Your task to perform on an android device: check google app version Image 0: 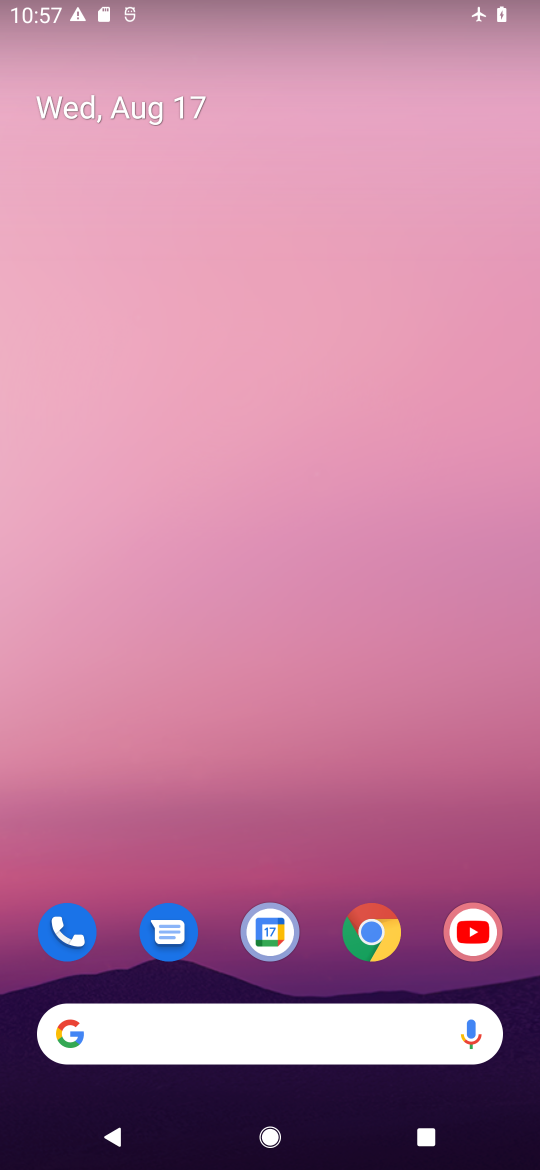
Step 0: drag from (308, 786) to (308, 221)
Your task to perform on an android device: check google app version Image 1: 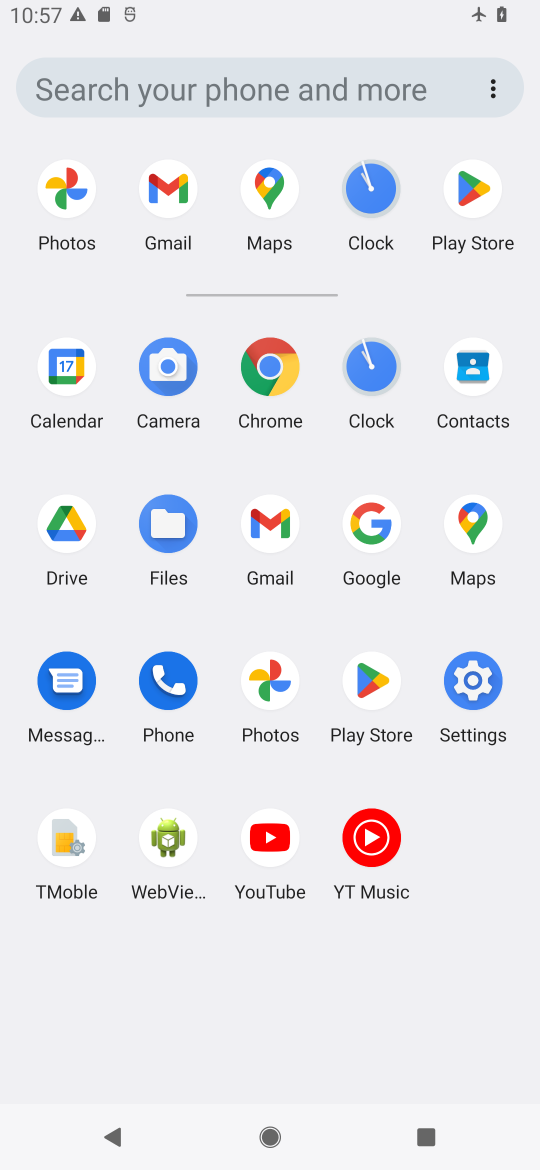
Step 1: click (358, 553)
Your task to perform on an android device: check google app version Image 2: 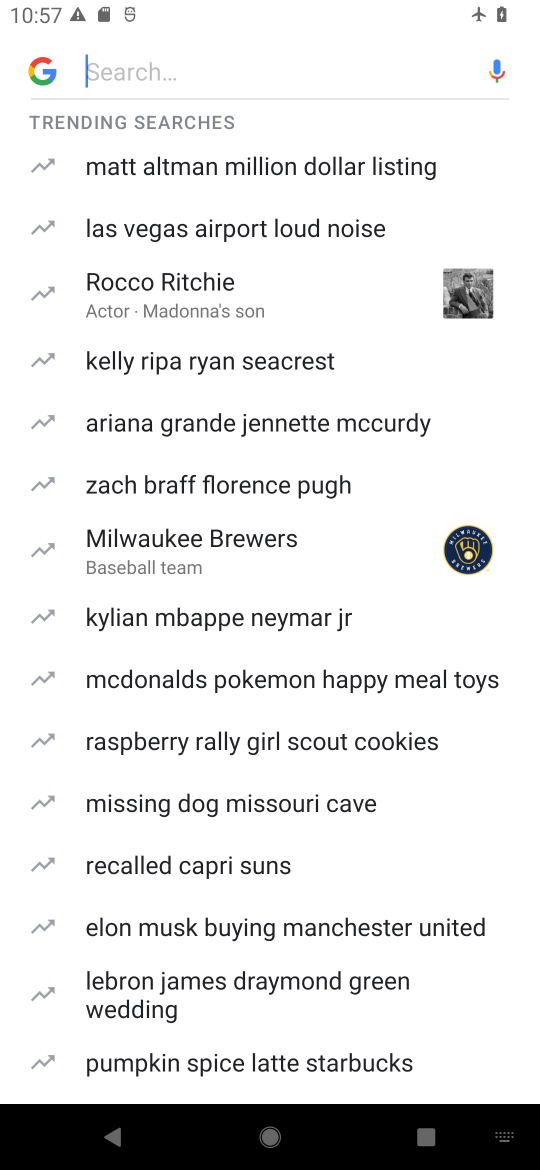
Step 2: click (28, 97)
Your task to perform on an android device: check google app version Image 3: 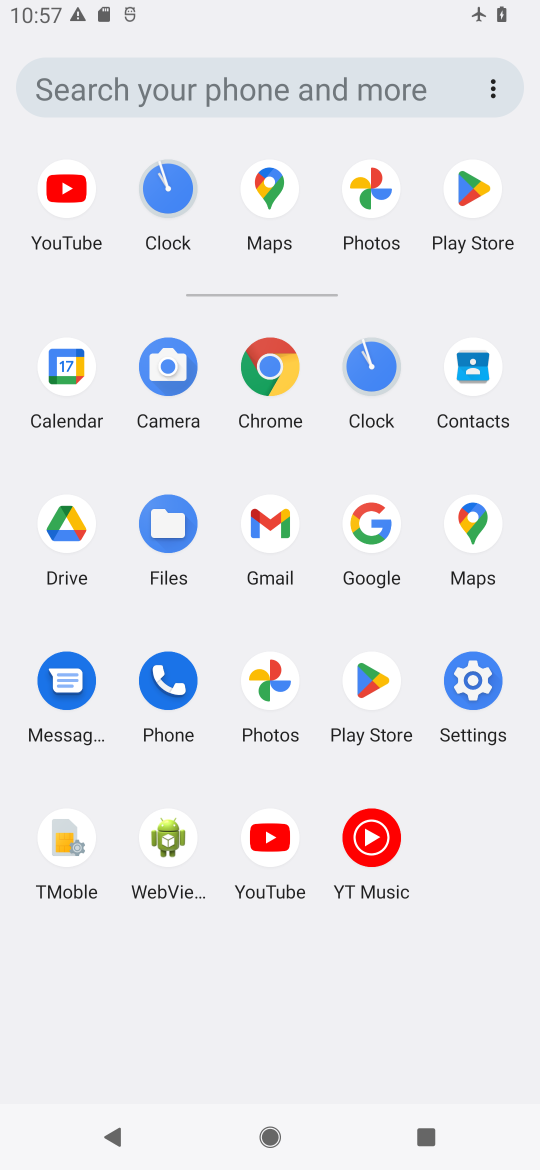
Step 3: click (385, 511)
Your task to perform on an android device: check google app version Image 4: 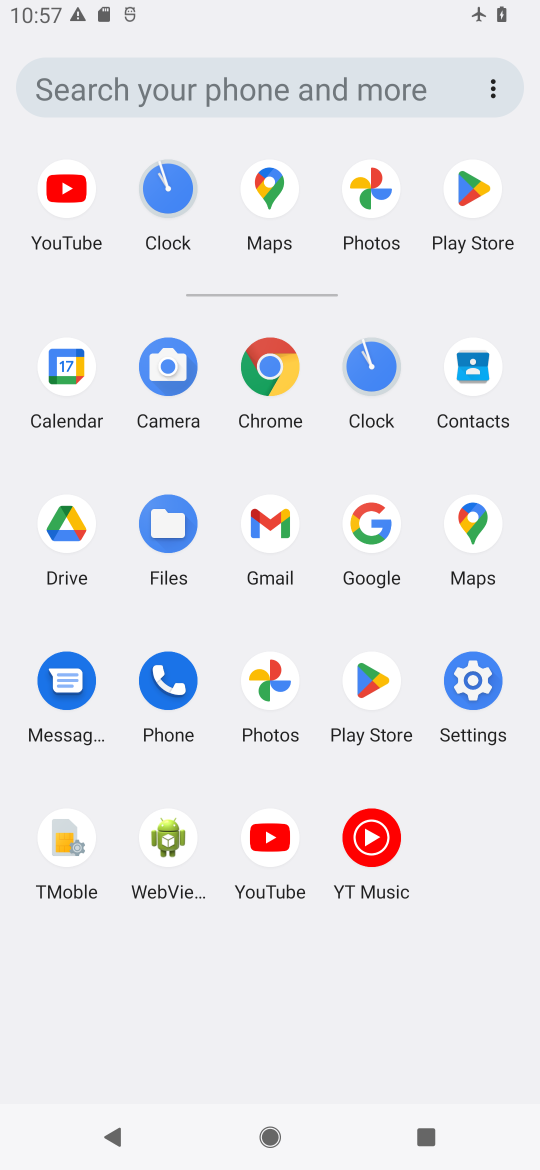
Step 4: click (376, 539)
Your task to perform on an android device: check google app version Image 5: 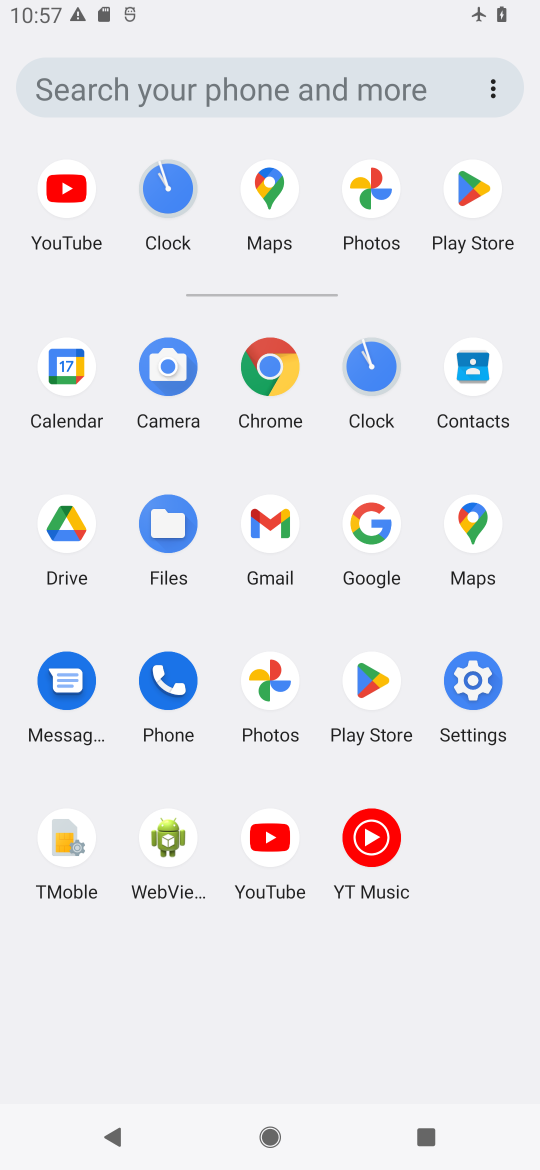
Step 5: click (359, 538)
Your task to perform on an android device: check google app version Image 6: 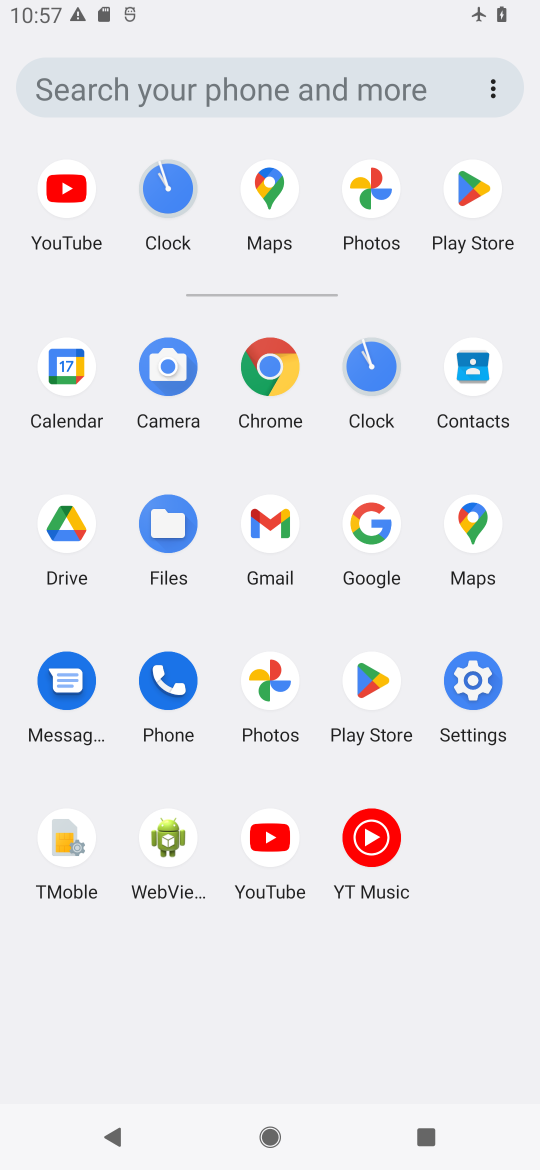
Step 6: click (380, 507)
Your task to perform on an android device: check google app version Image 7: 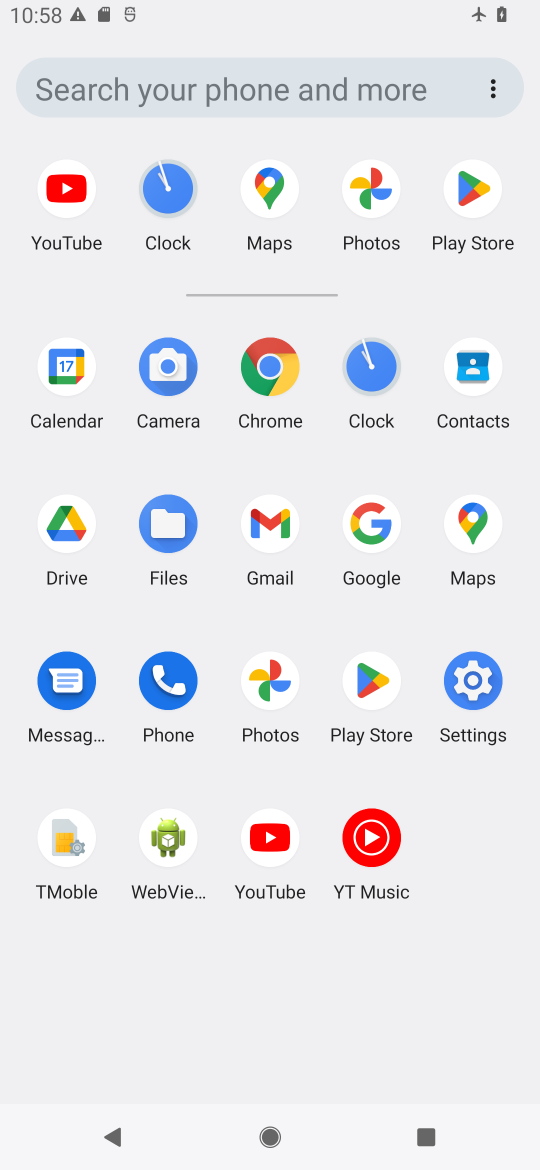
Step 7: click (371, 525)
Your task to perform on an android device: check google app version Image 8: 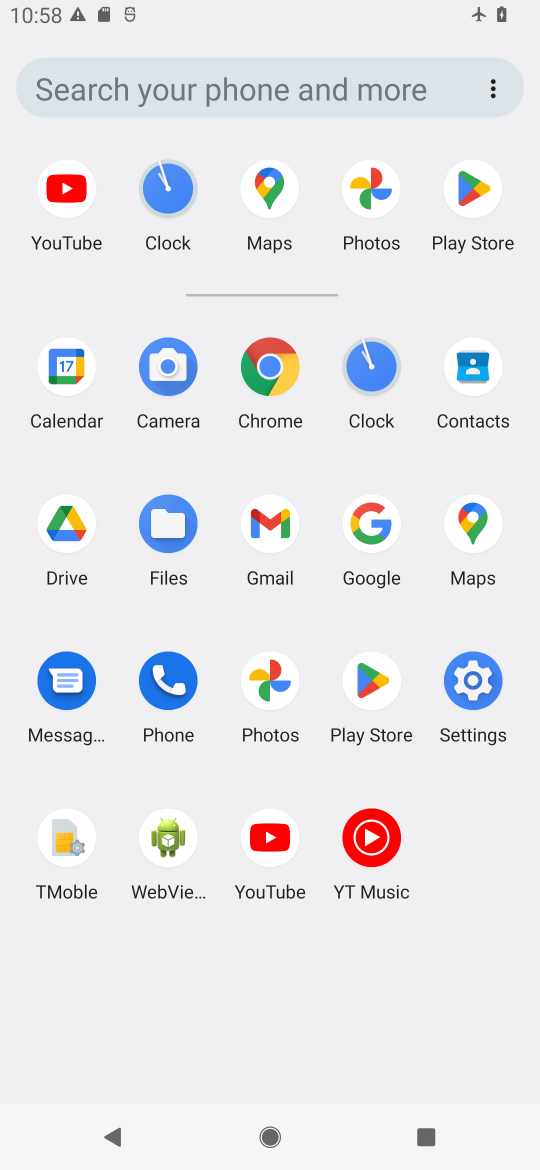
Step 8: click (374, 557)
Your task to perform on an android device: check google app version Image 9: 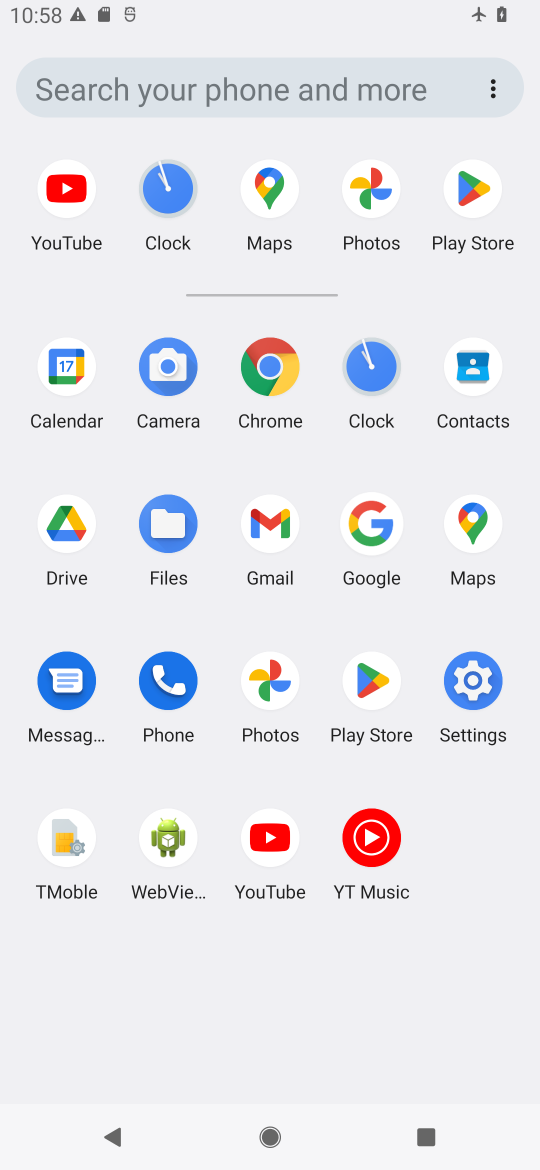
Step 9: task complete